Your task to perform on an android device: turn off airplane mode Image 0: 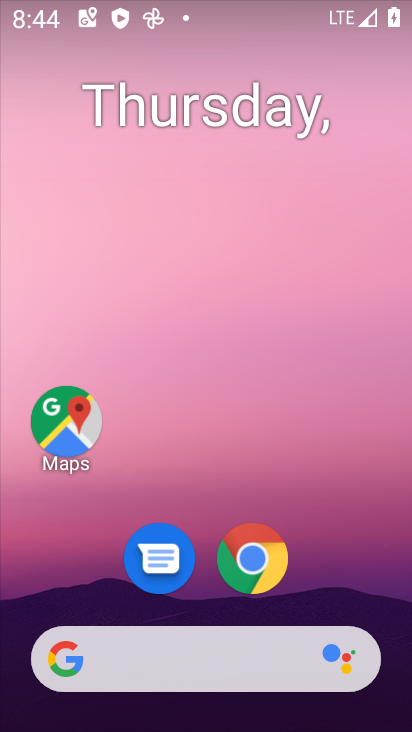
Step 0: drag from (188, 629) to (342, 55)
Your task to perform on an android device: turn off airplane mode Image 1: 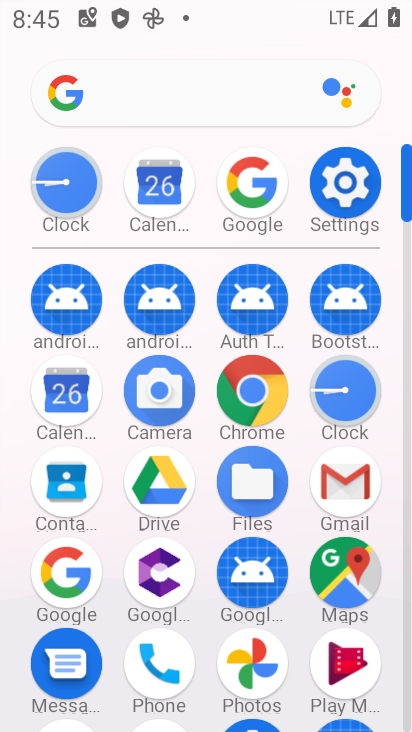
Step 1: click (350, 186)
Your task to perform on an android device: turn off airplane mode Image 2: 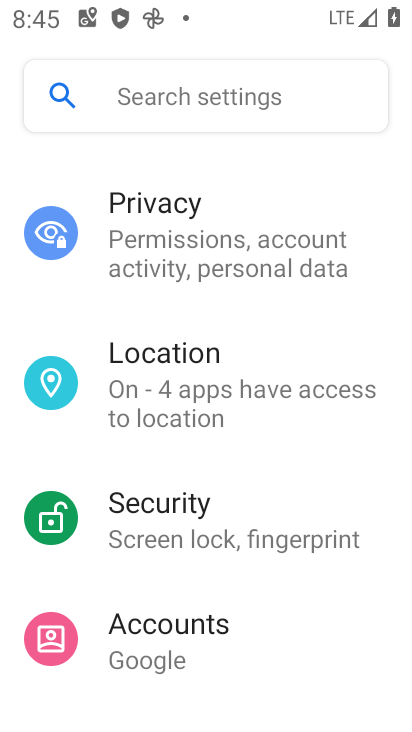
Step 2: drag from (258, 204) to (212, 686)
Your task to perform on an android device: turn off airplane mode Image 3: 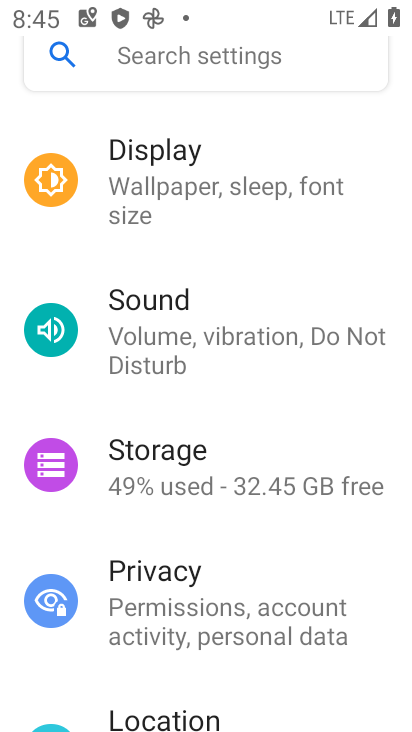
Step 3: drag from (279, 172) to (209, 626)
Your task to perform on an android device: turn off airplane mode Image 4: 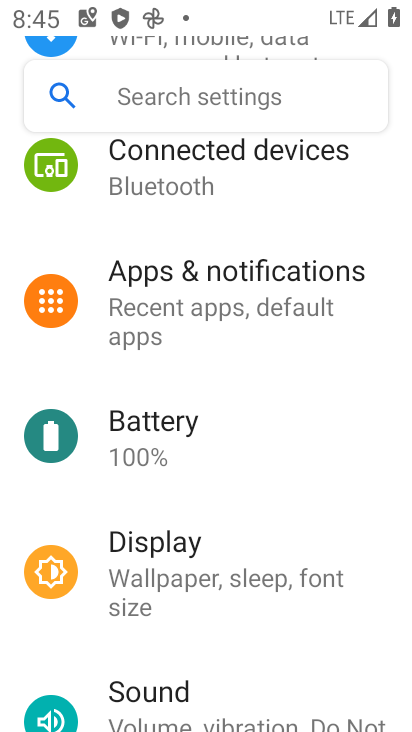
Step 4: drag from (217, 223) to (183, 663)
Your task to perform on an android device: turn off airplane mode Image 5: 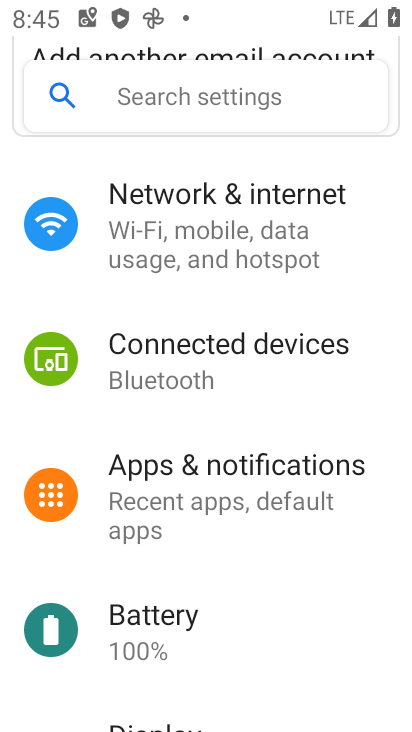
Step 5: click (258, 231)
Your task to perform on an android device: turn off airplane mode Image 6: 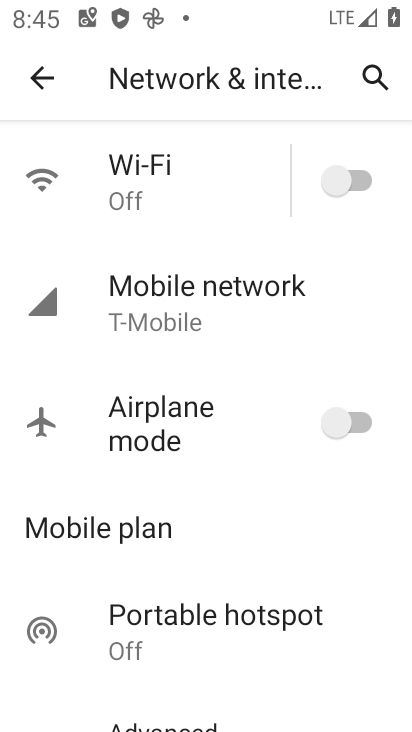
Step 6: task complete